Your task to perform on an android device: Who is the prime minister of the United Kingdom? Image 0: 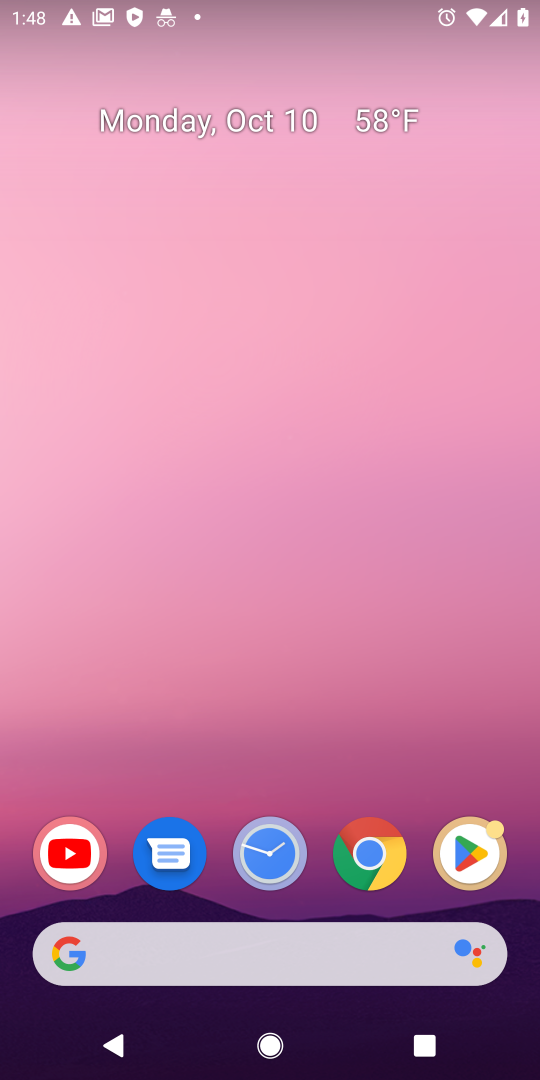
Step 0: click (353, 867)
Your task to perform on an android device: Who is the prime minister of the United Kingdom? Image 1: 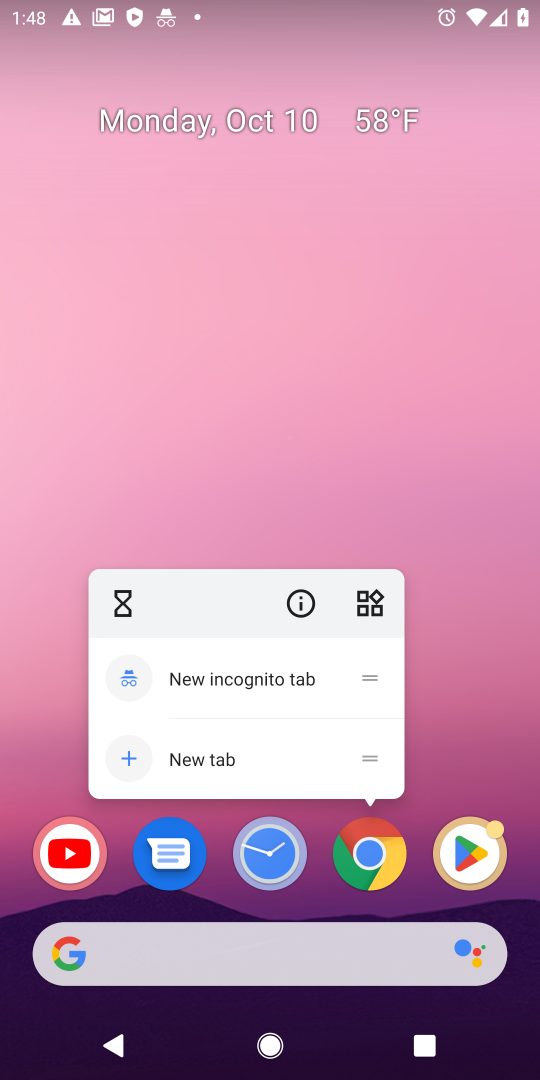
Step 1: click (353, 867)
Your task to perform on an android device: Who is the prime minister of the United Kingdom? Image 2: 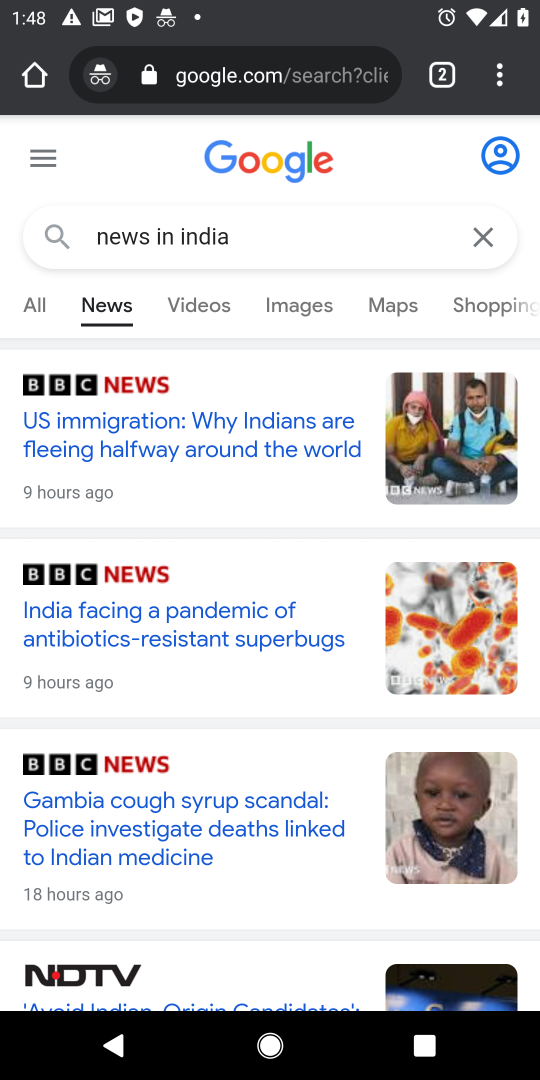
Step 2: click (33, 315)
Your task to perform on an android device: Who is the prime minister of the United Kingdom? Image 3: 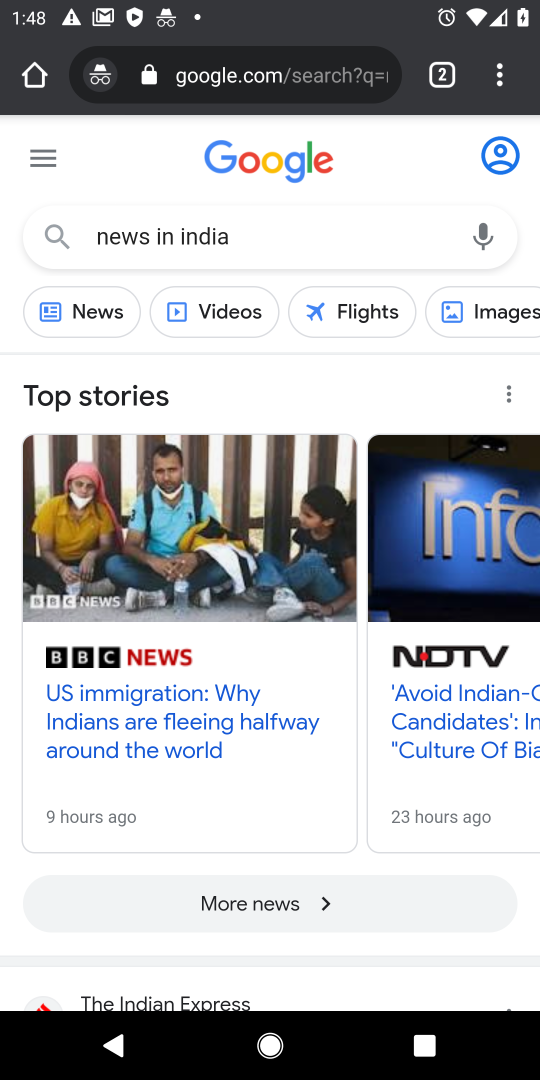
Step 3: click (359, 235)
Your task to perform on an android device: Who is the prime minister of the United Kingdom? Image 4: 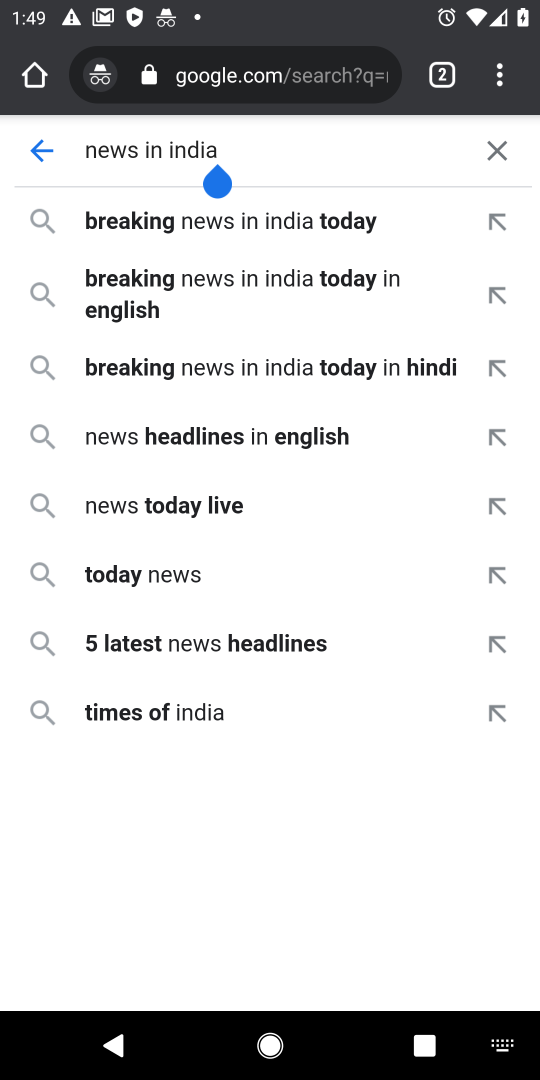
Step 4: click (499, 144)
Your task to perform on an android device: Who is the prime minister of the United Kingdom? Image 5: 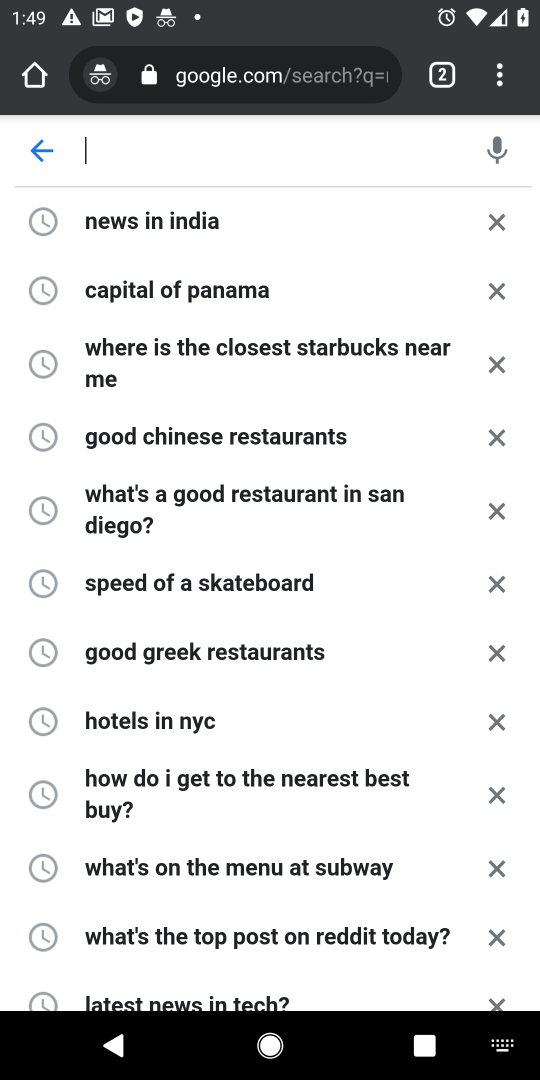
Step 5: type "Who is the prime minister of the United Kingdom?"
Your task to perform on an android device: Who is the prime minister of the United Kingdom? Image 6: 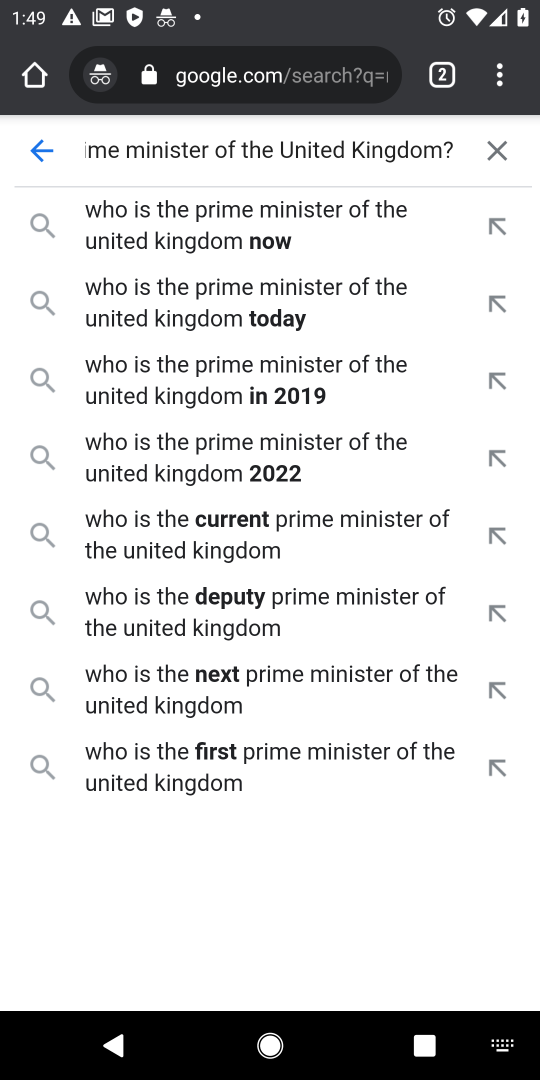
Step 6: press enter
Your task to perform on an android device: Who is the prime minister of the United Kingdom? Image 7: 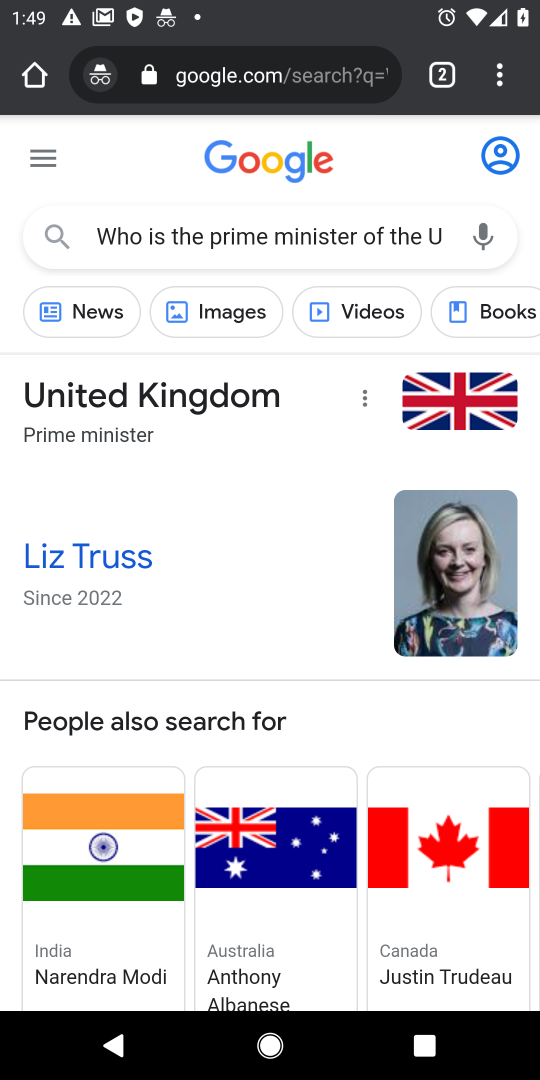
Step 7: task complete